Your task to perform on an android device: Go to Wikipedia Image 0: 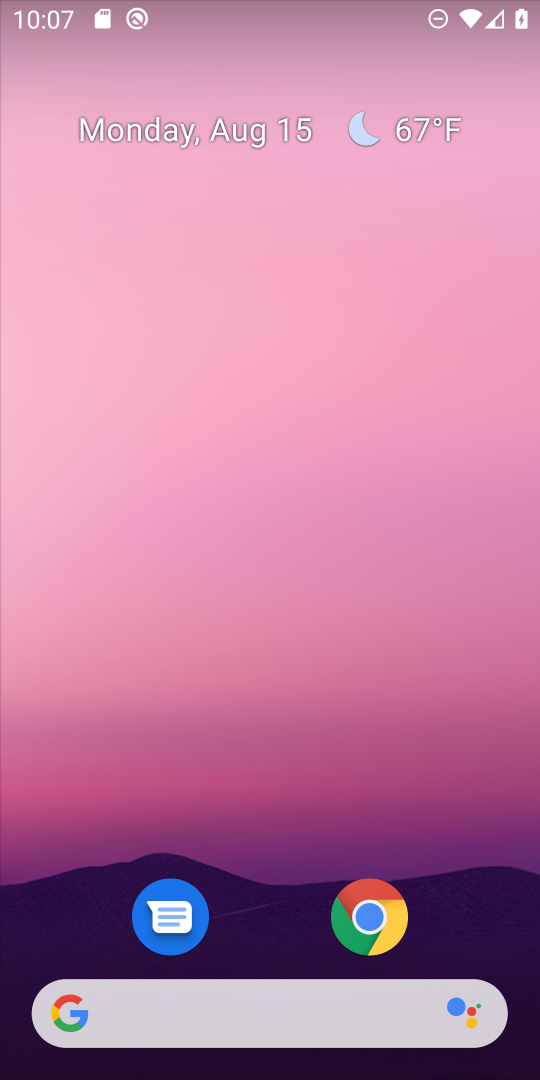
Step 0: click (366, 918)
Your task to perform on an android device: Go to Wikipedia Image 1: 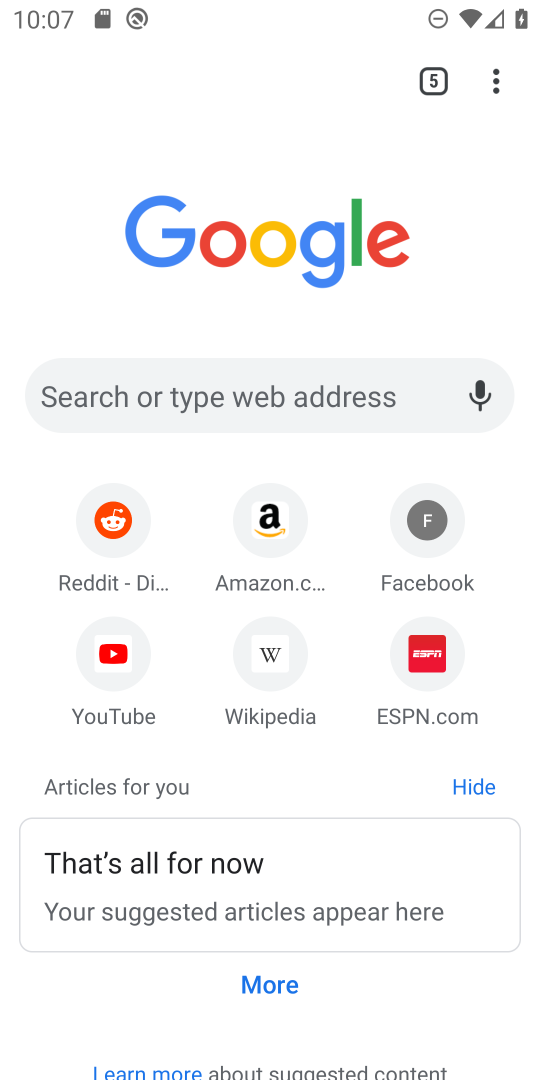
Step 1: click (273, 658)
Your task to perform on an android device: Go to Wikipedia Image 2: 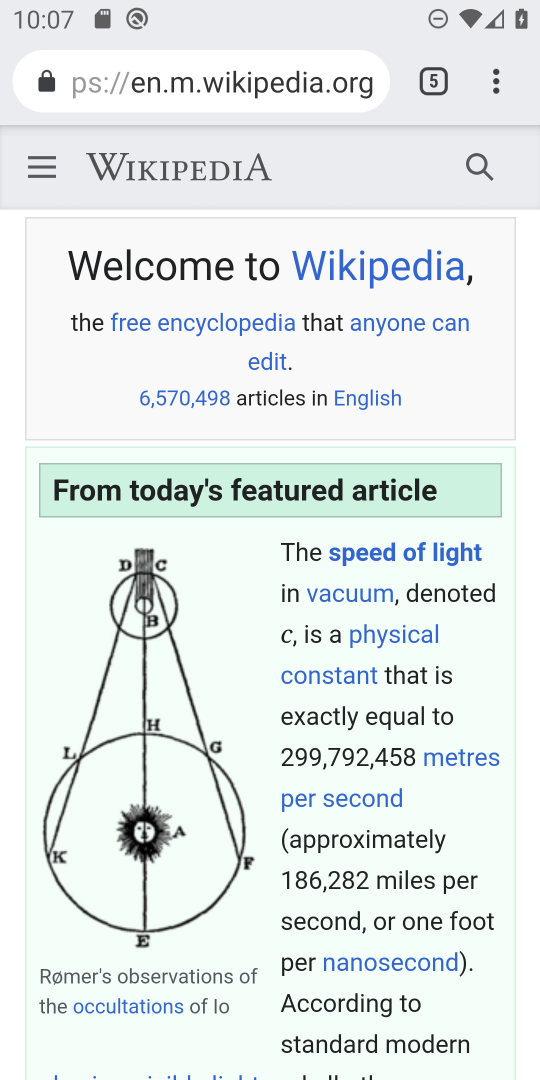
Step 2: task complete